Your task to perform on an android device: Search for pizza restaurants on Maps Image 0: 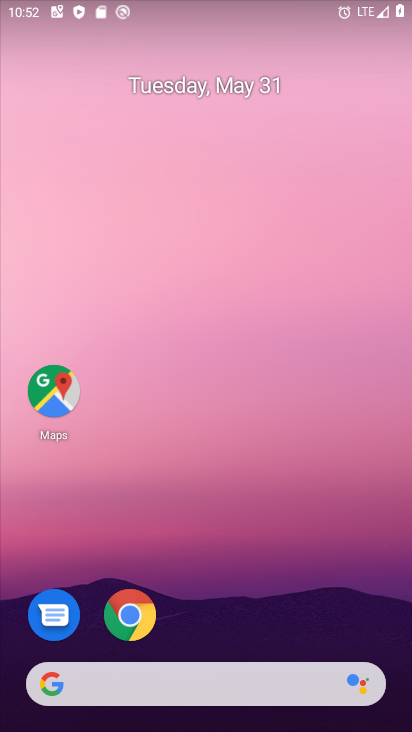
Step 0: drag from (284, 548) to (339, 8)
Your task to perform on an android device: Search for pizza restaurants on Maps Image 1: 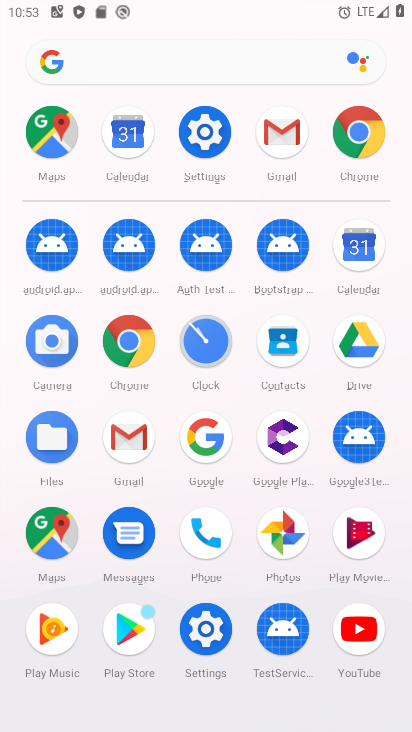
Step 1: click (44, 153)
Your task to perform on an android device: Search for pizza restaurants on Maps Image 2: 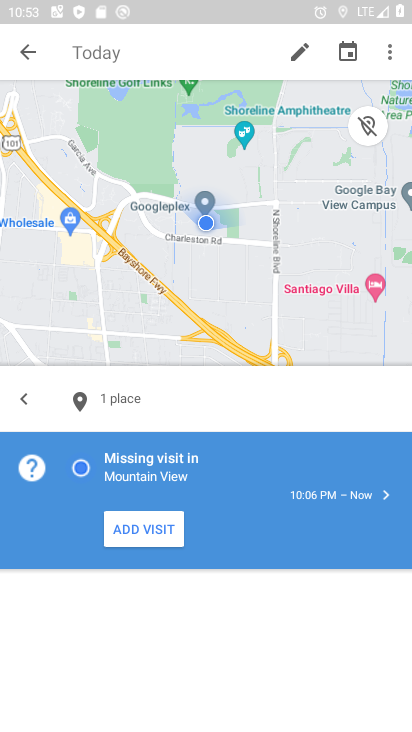
Step 2: click (35, 54)
Your task to perform on an android device: Search for pizza restaurants on Maps Image 3: 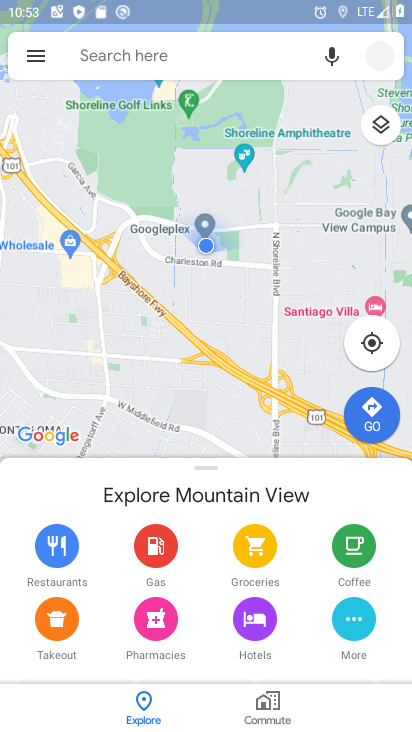
Step 3: click (173, 50)
Your task to perform on an android device: Search for pizza restaurants on Maps Image 4: 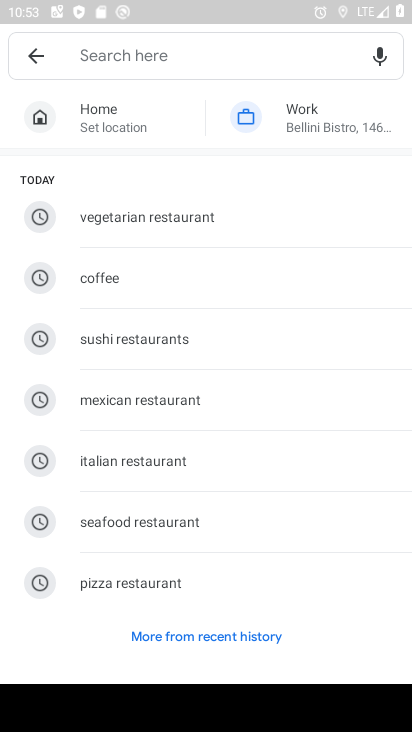
Step 4: click (212, 581)
Your task to perform on an android device: Search for pizza restaurants on Maps Image 5: 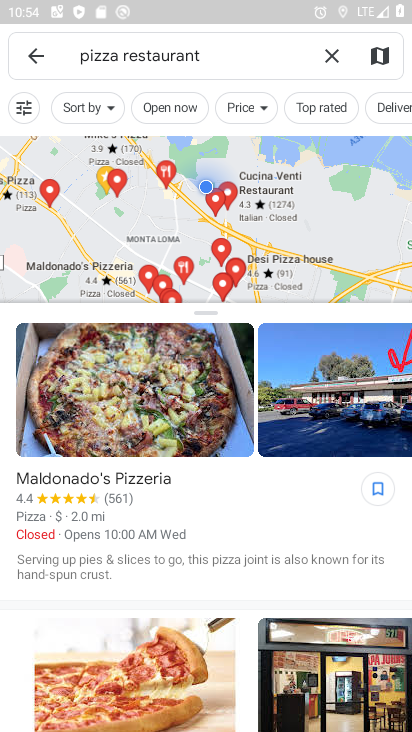
Step 5: task complete